Your task to perform on an android device: Open Chrome and go to settings Image 0: 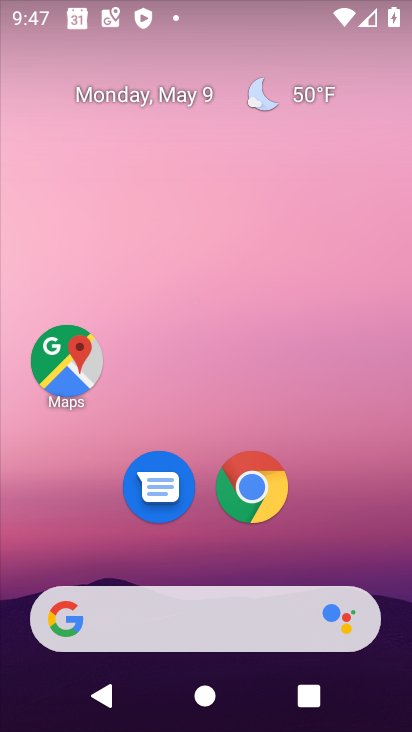
Step 0: click (257, 481)
Your task to perform on an android device: Open Chrome and go to settings Image 1: 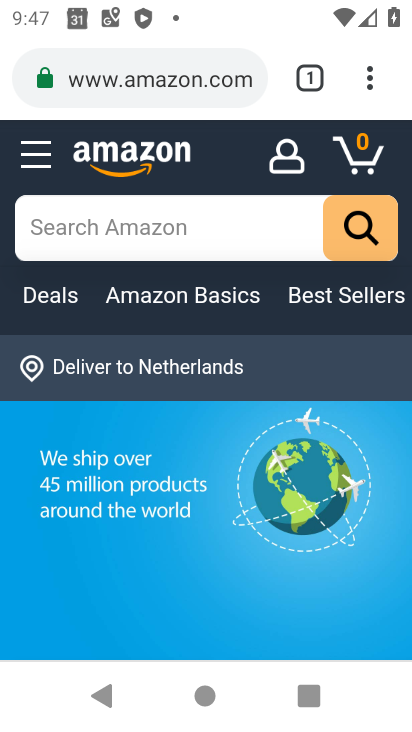
Step 1: click (353, 67)
Your task to perform on an android device: Open Chrome and go to settings Image 2: 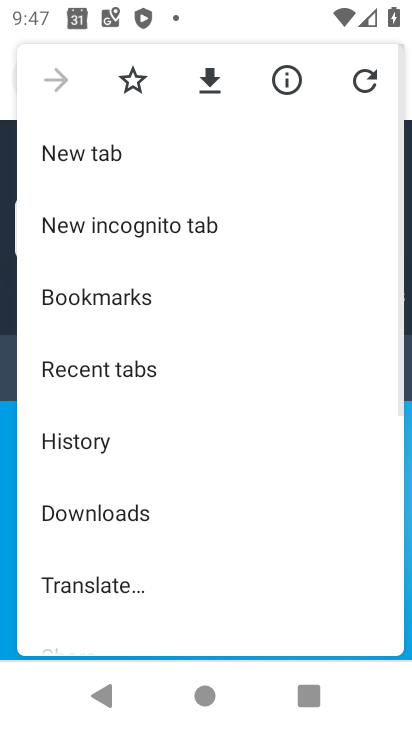
Step 2: drag from (145, 577) to (367, 0)
Your task to perform on an android device: Open Chrome and go to settings Image 3: 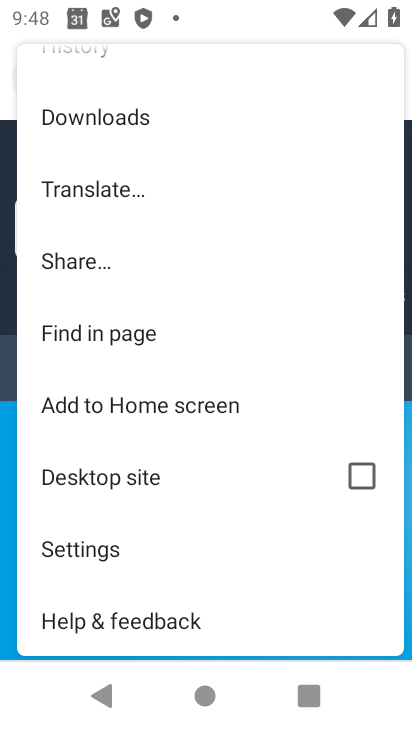
Step 3: click (113, 556)
Your task to perform on an android device: Open Chrome and go to settings Image 4: 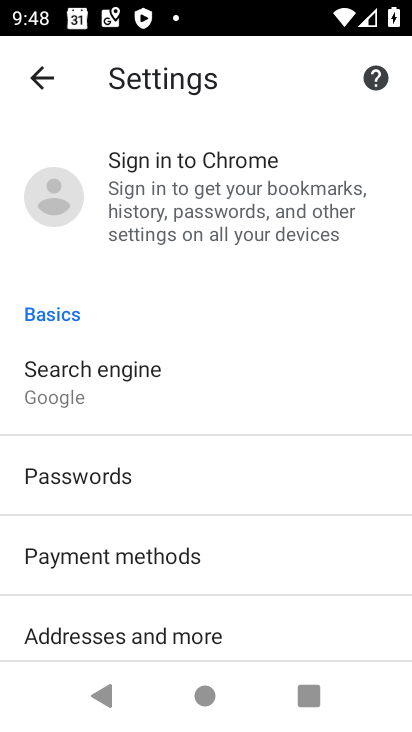
Step 4: task complete